Your task to perform on an android device: Open sound settings Image 0: 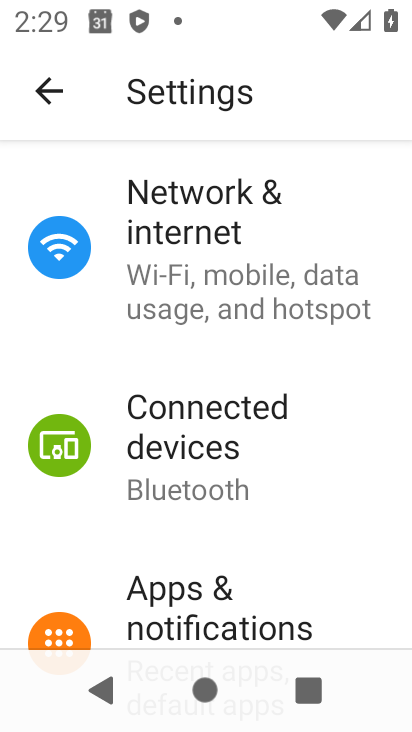
Step 0: drag from (258, 570) to (242, 187)
Your task to perform on an android device: Open sound settings Image 1: 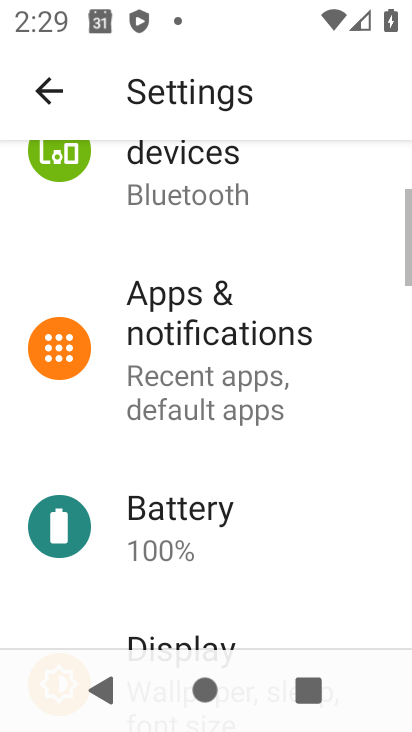
Step 1: drag from (218, 586) to (203, 179)
Your task to perform on an android device: Open sound settings Image 2: 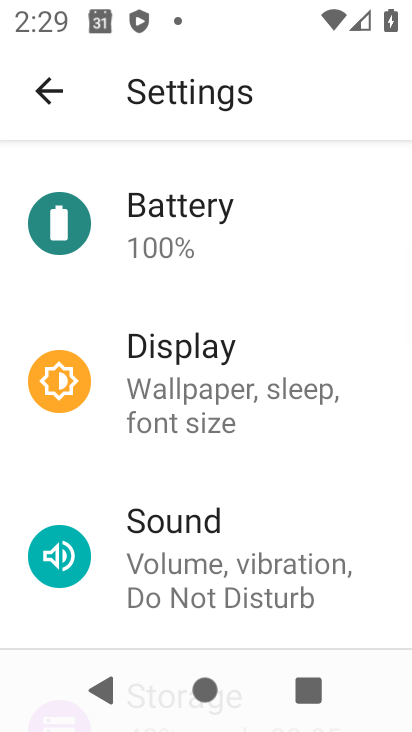
Step 2: drag from (210, 594) to (224, 404)
Your task to perform on an android device: Open sound settings Image 3: 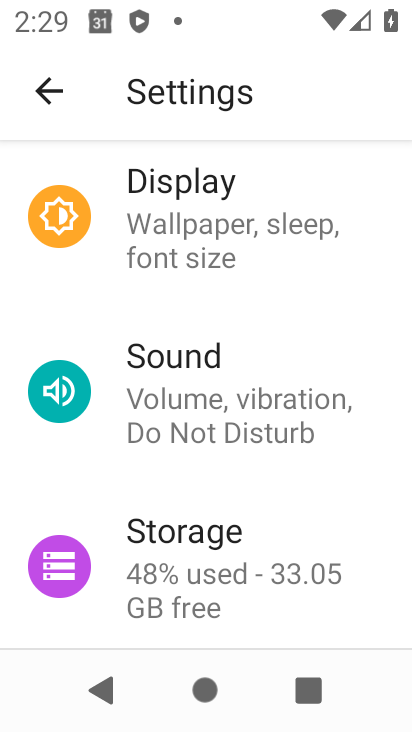
Step 3: click (215, 414)
Your task to perform on an android device: Open sound settings Image 4: 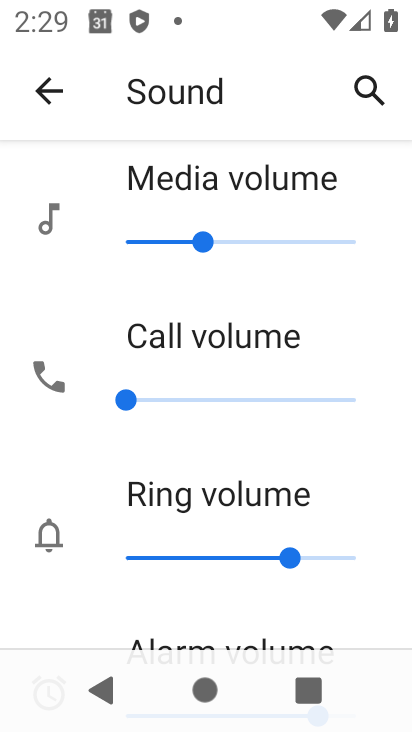
Step 4: task complete